Your task to perform on an android device: Go to internet settings Image 0: 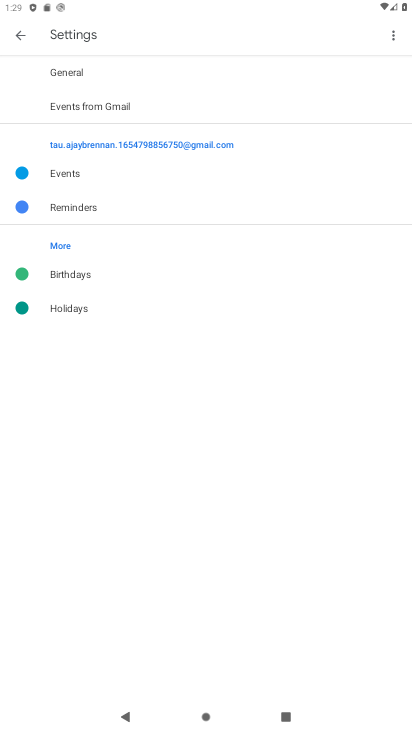
Step 0: press home button
Your task to perform on an android device: Go to internet settings Image 1: 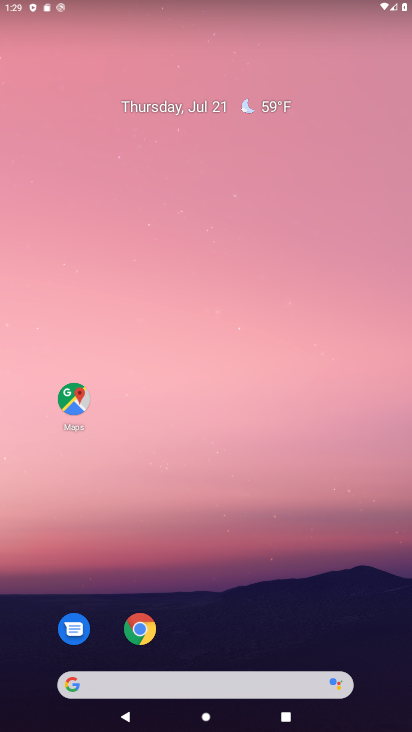
Step 1: drag from (374, 651) to (344, 61)
Your task to perform on an android device: Go to internet settings Image 2: 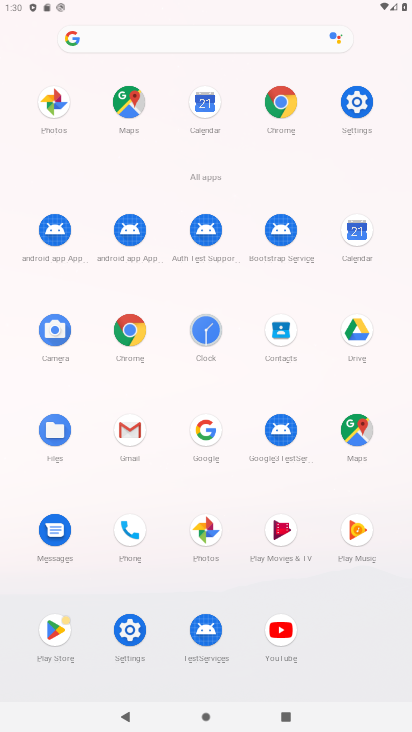
Step 2: click (130, 631)
Your task to perform on an android device: Go to internet settings Image 3: 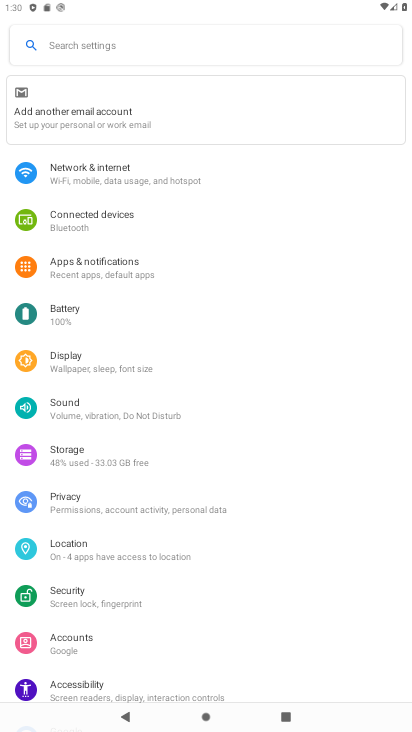
Step 3: click (85, 168)
Your task to perform on an android device: Go to internet settings Image 4: 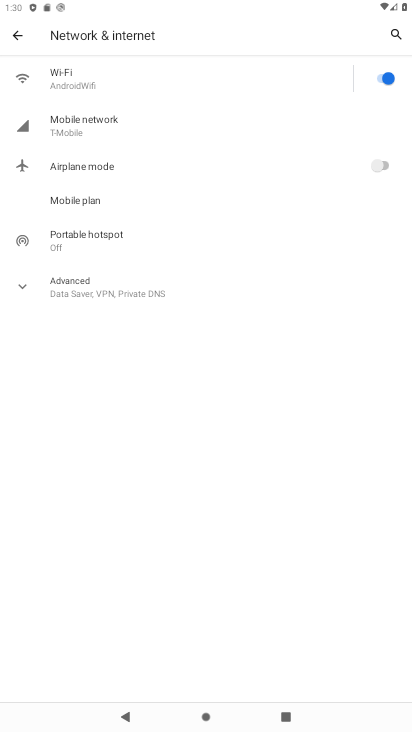
Step 4: click (57, 79)
Your task to perform on an android device: Go to internet settings Image 5: 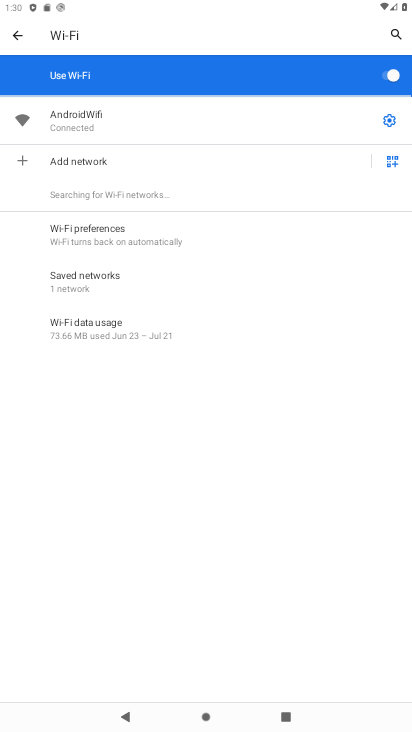
Step 5: task complete